Your task to perform on an android device: empty trash in the gmail app Image 0: 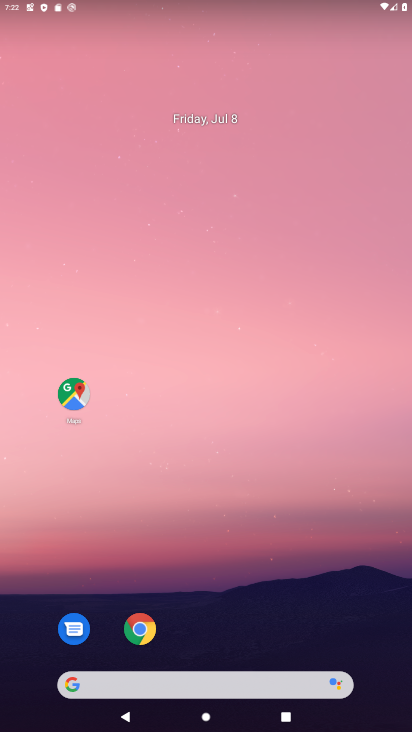
Step 0: press home button
Your task to perform on an android device: empty trash in the gmail app Image 1: 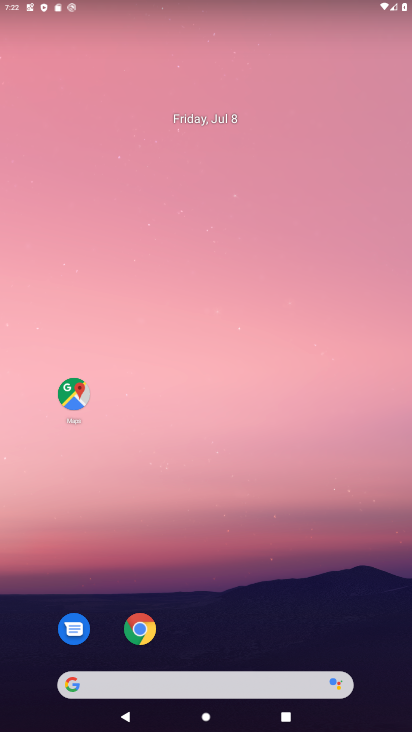
Step 1: drag from (273, 405) to (284, 2)
Your task to perform on an android device: empty trash in the gmail app Image 2: 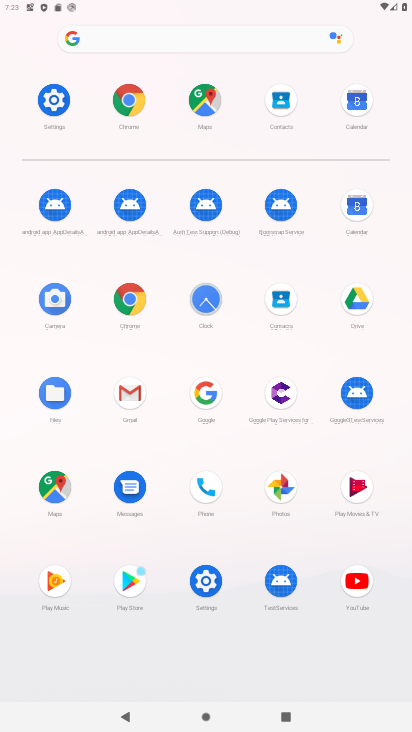
Step 2: click (132, 95)
Your task to perform on an android device: empty trash in the gmail app Image 3: 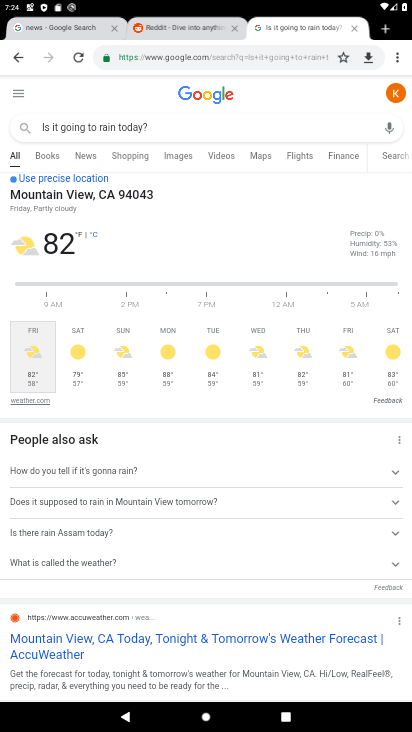
Step 3: drag from (400, 58) to (401, 2)
Your task to perform on an android device: empty trash in the gmail app Image 4: 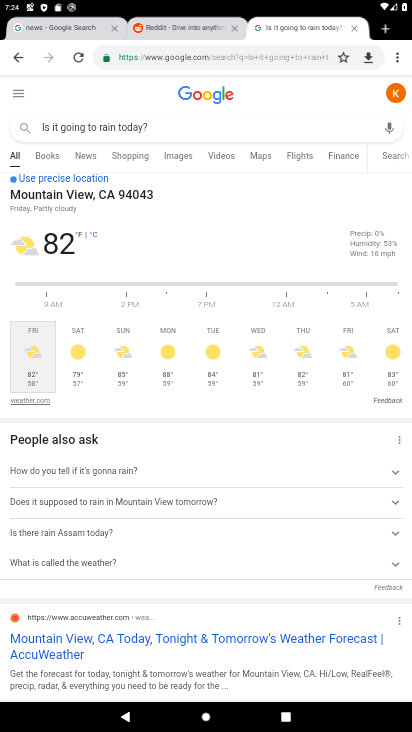
Step 4: press home button
Your task to perform on an android device: empty trash in the gmail app Image 5: 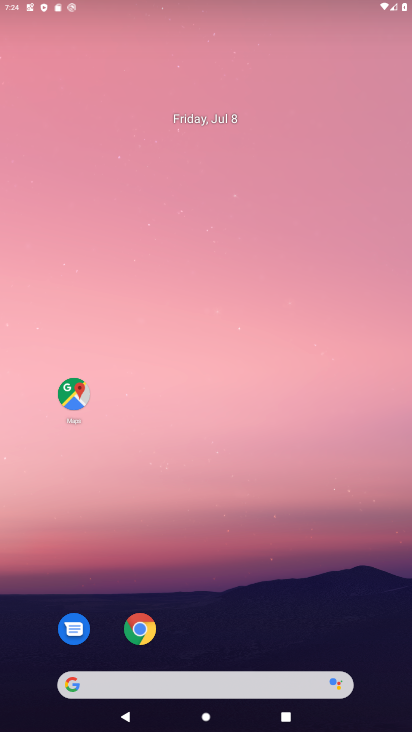
Step 5: drag from (330, 494) to (285, 105)
Your task to perform on an android device: empty trash in the gmail app Image 6: 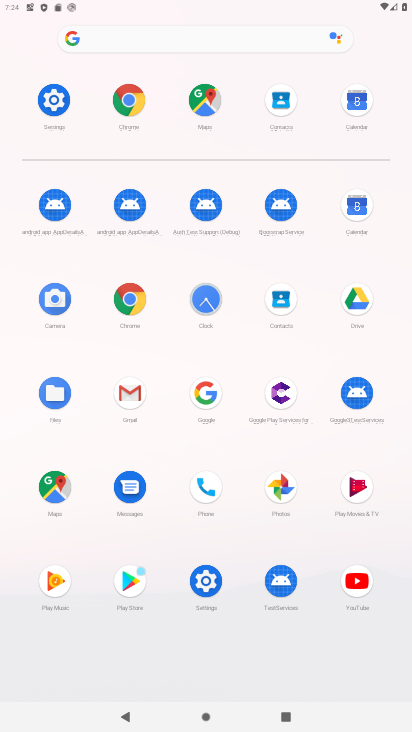
Step 6: click (125, 414)
Your task to perform on an android device: empty trash in the gmail app Image 7: 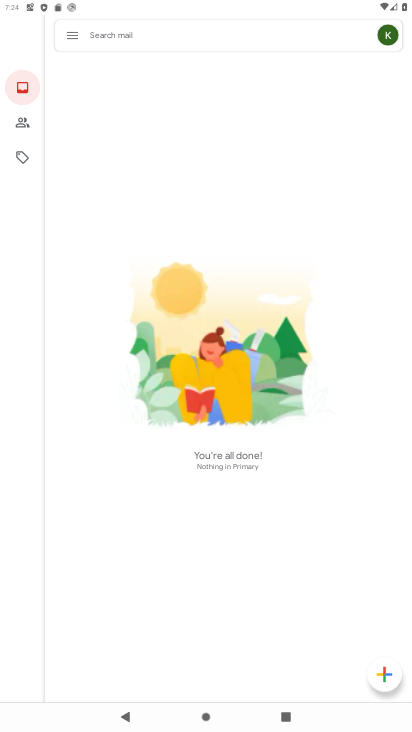
Step 7: click (81, 35)
Your task to perform on an android device: empty trash in the gmail app Image 8: 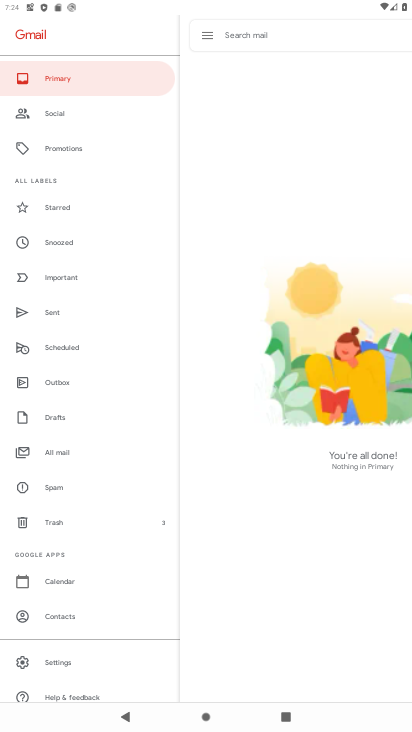
Step 8: click (34, 530)
Your task to perform on an android device: empty trash in the gmail app Image 9: 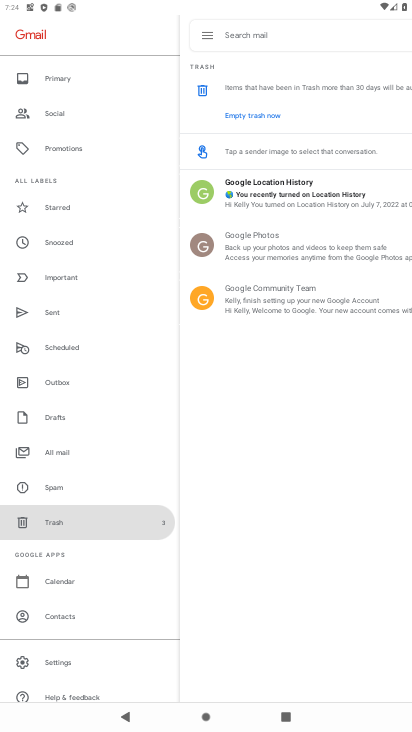
Step 9: task complete